Your task to perform on an android device: turn off wifi Image 0: 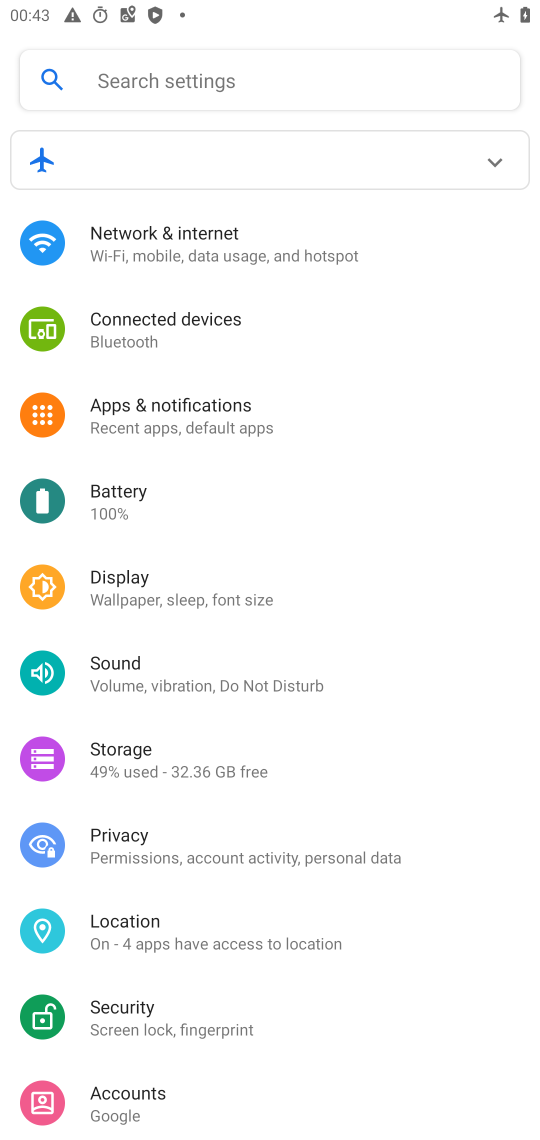
Step 0: click (166, 245)
Your task to perform on an android device: turn off wifi Image 1: 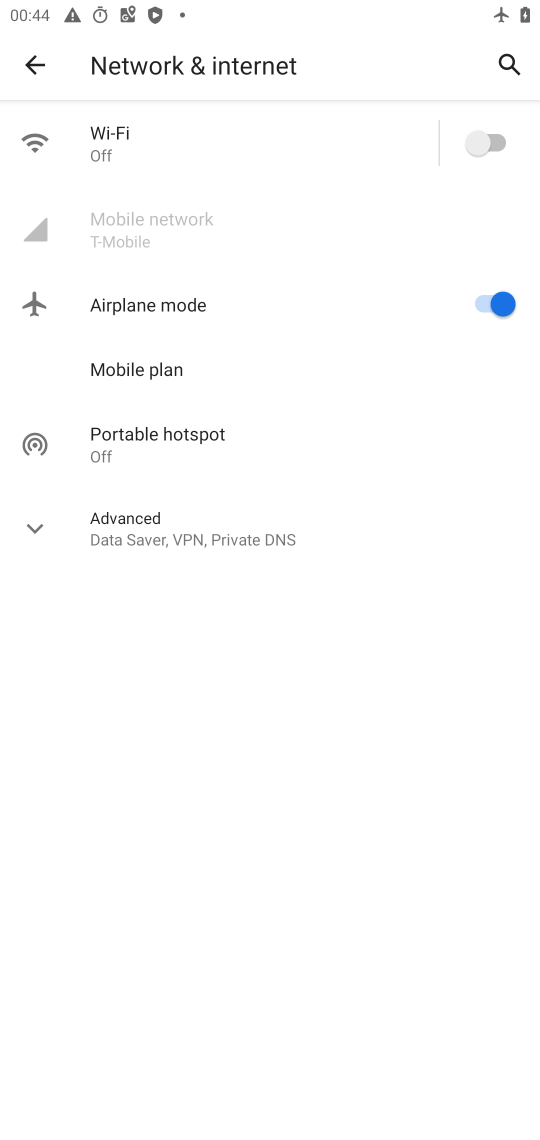
Step 1: task complete